Your task to perform on an android device: Open settings on Google Maps Image 0: 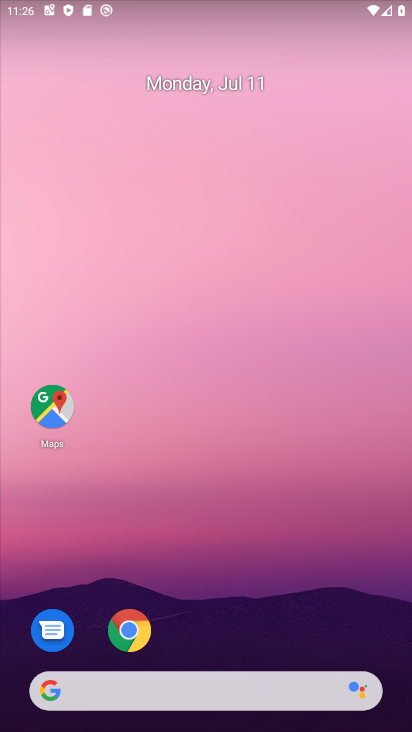
Step 0: drag from (186, 637) to (151, 56)
Your task to perform on an android device: Open settings on Google Maps Image 1: 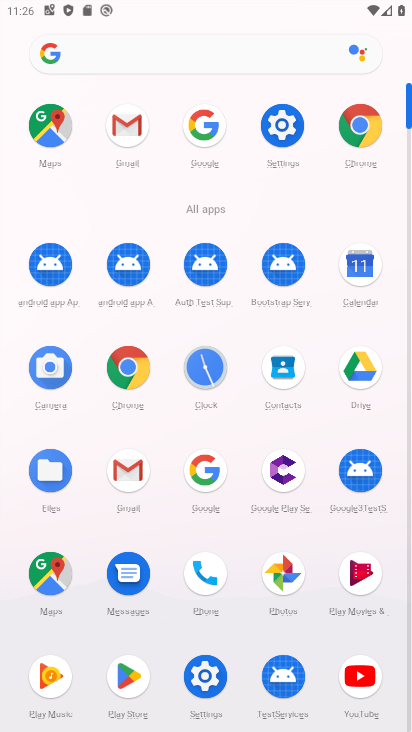
Step 1: click (49, 124)
Your task to perform on an android device: Open settings on Google Maps Image 2: 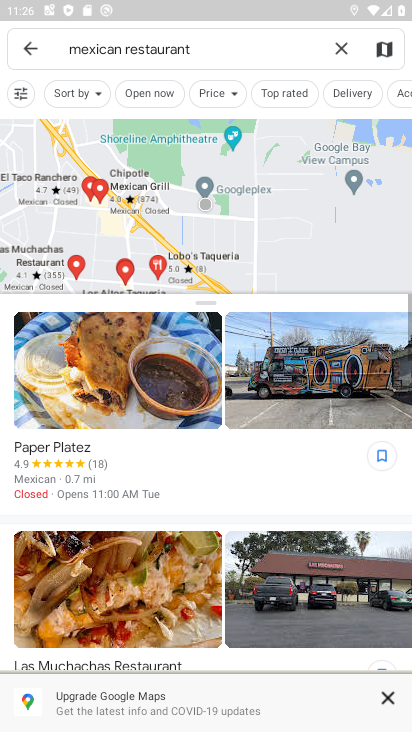
Step 2: click (333, 48)
Your task to perform on an android device: Open settings on Google Maps Image 3: 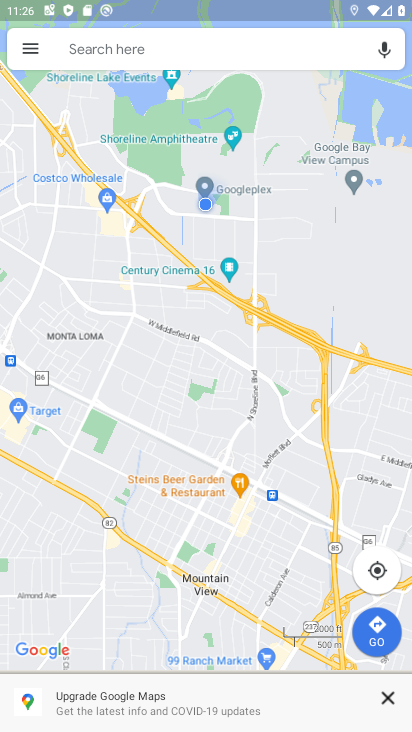
Step 3: click (30, 47)
Your task to perform on an android device: Open settings on Google Maps Image 4: 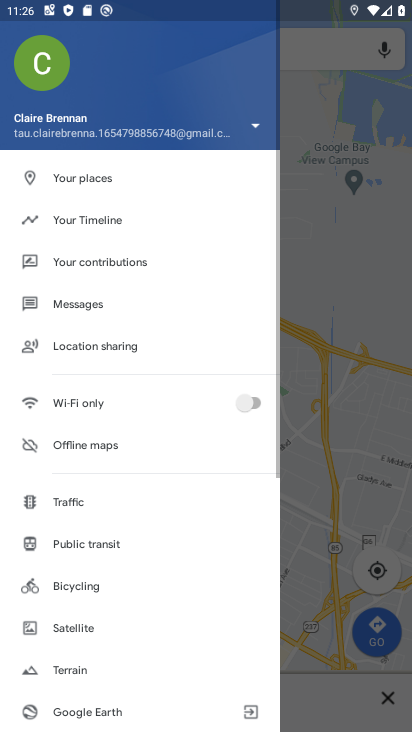
Step 4: drag from (82, 679) to (85, 334)
Your task to perform on an android device: Open settings on Google Maps Image 5: 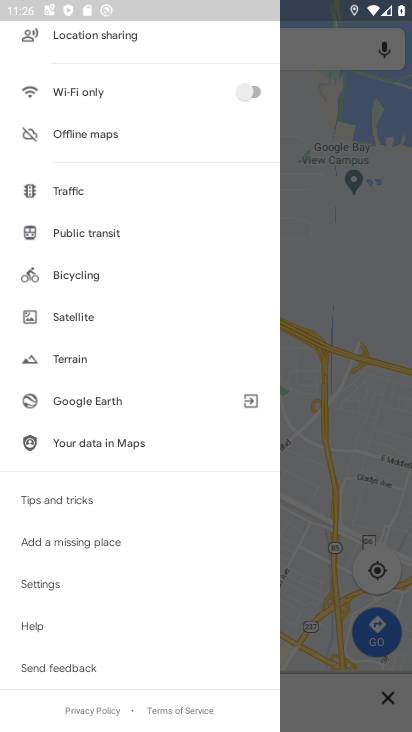
Step 5: click (56, 582)
Your task to perform on an android device: Open settings on Google Maps Image 6: 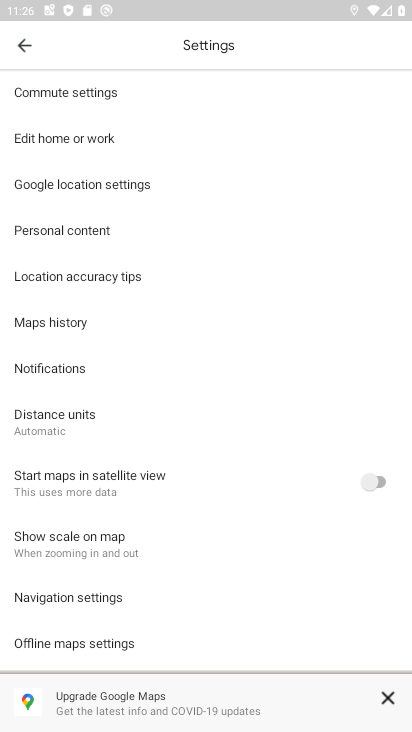
Step 6: task complete